Your task to perform on an android device: open app "PUBG MOBILE" Image 0: 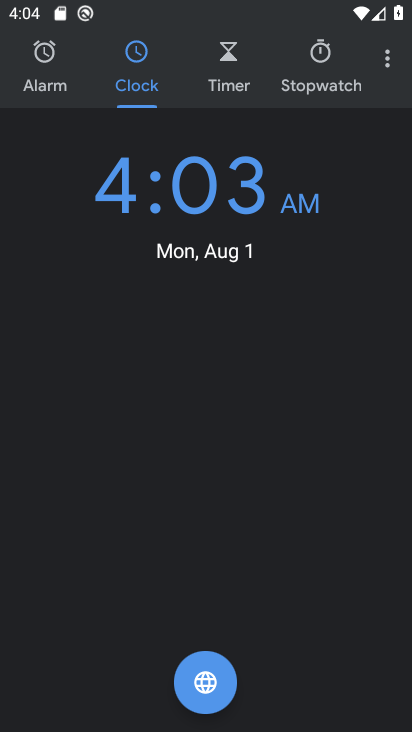
Step 0: press home button
Your task to perform on an android device: open app "PUBG MOBILE" Image 1: 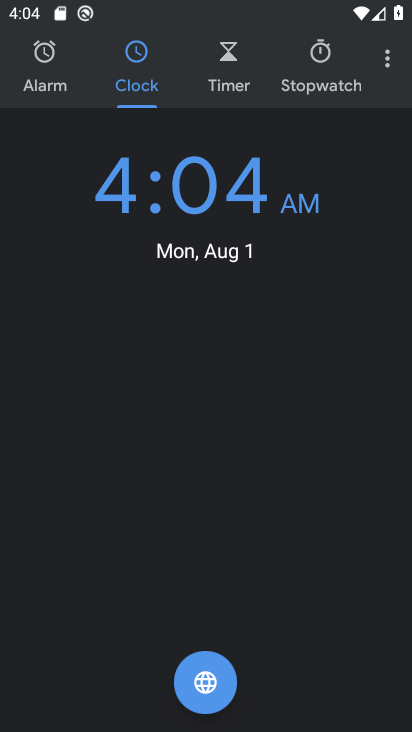
Step 1: press home button
Your task to perform on an android device: open app "PUBG MOBILE" Image 2: 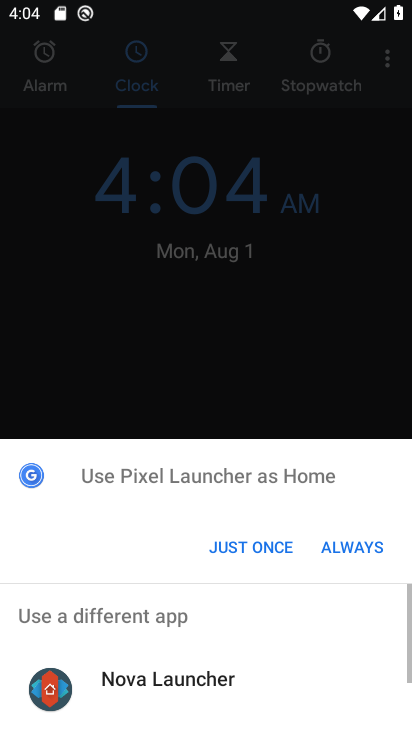
Step 2: press home button
Your task to perform on an android device: open app "PUBG MOBILE" Image 3: 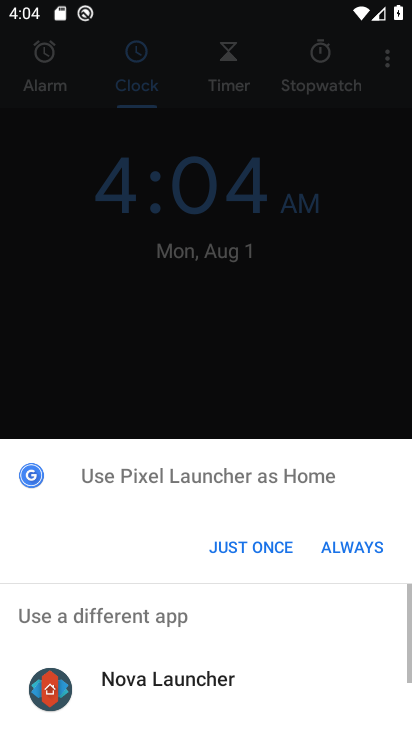
Step 3: press home button
Your task to perform on an android device: open app "PUBG MOBILE" Image 4: 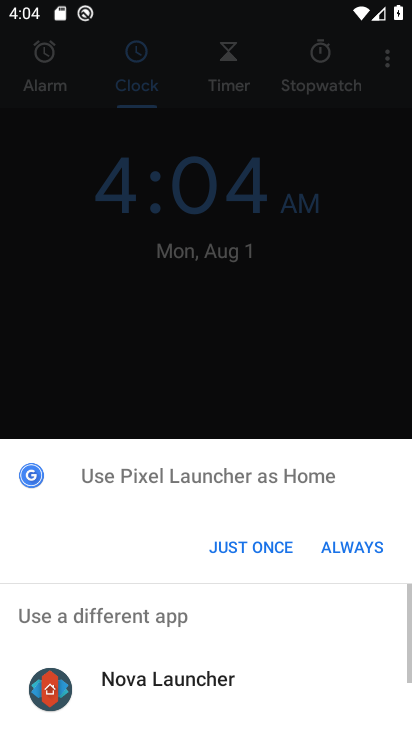
Step 4: press home button
Your task to perform on an android device: open app "PUBG MOBILE" Image 5: 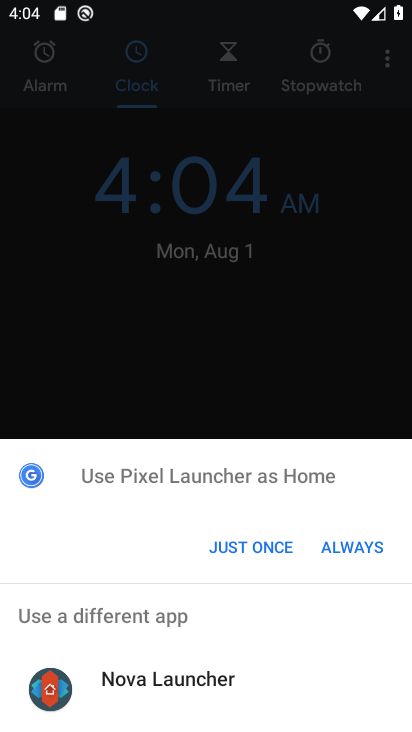
Step 5: press home button
Your task to perform on an android device: open app "PUBG MOBILE" Image 6: 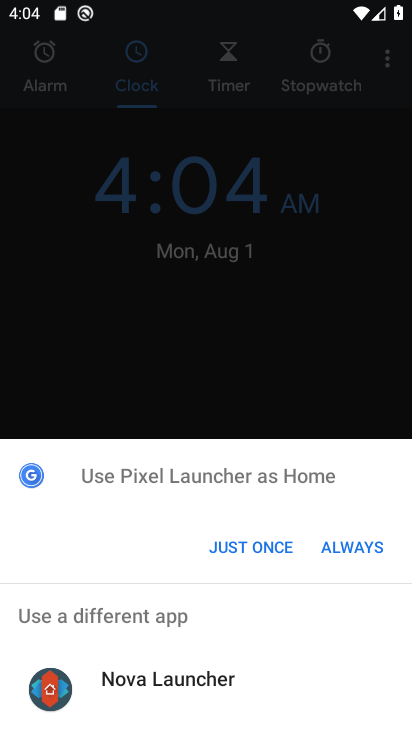
Step 6: press home button
Your task to perform on an android device: open app "PUBG MOBILE" Image 7: 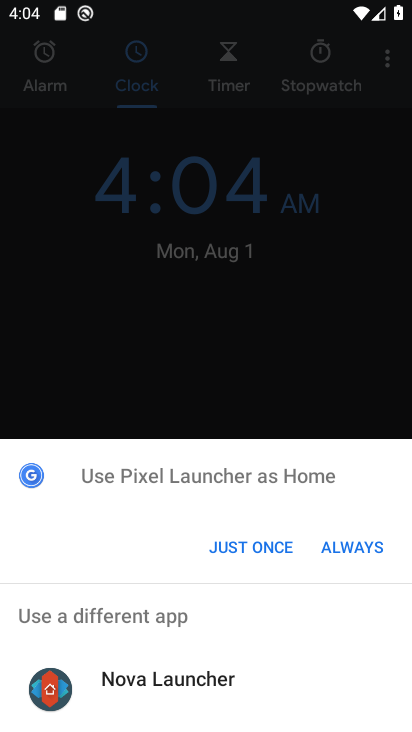
Step 7: press home button
Your task to perform on an android device: open app "PUBG MOBILE" Image 8: 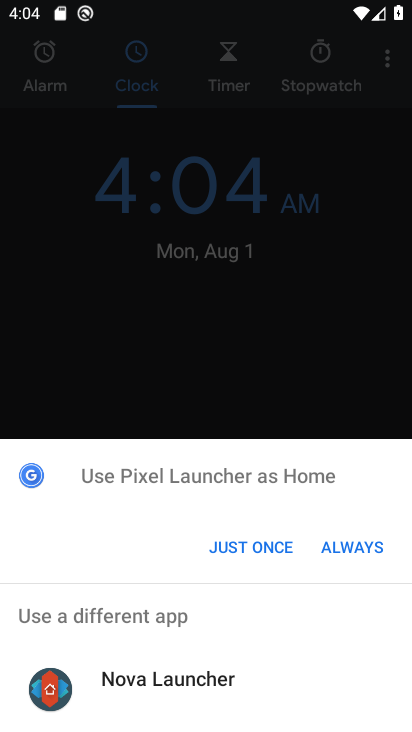
Step 8: click (364, 549)
Your task to perform on an android device: open app "PUBG MOBILE" Image 9: 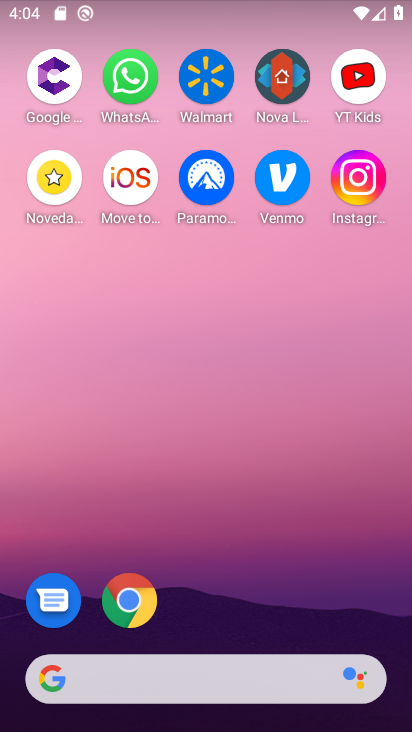
Step 9: drag from (245, 445) to (290, 46)
Your task to perform on an android device: open app "PUBG MOBILE" Image 10: 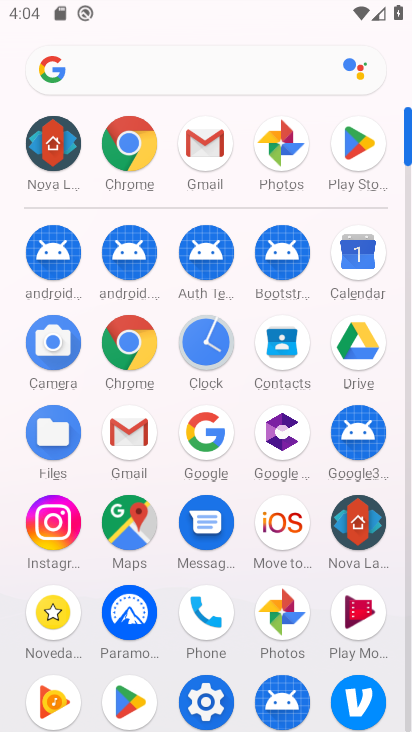
Step 10: click (352, 144)
Your task to perform on an android device: open app "PUBG MOBILE" Image 11: 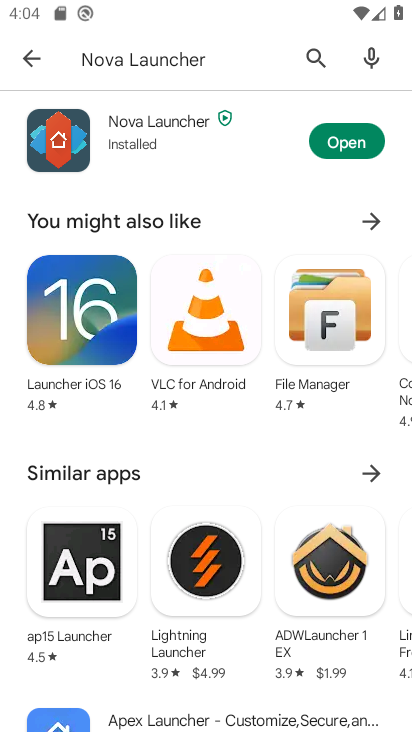
Step 11: click (288, 43)
Your task to perform on an android device: open app "PUBG MOBILE" Image 12: 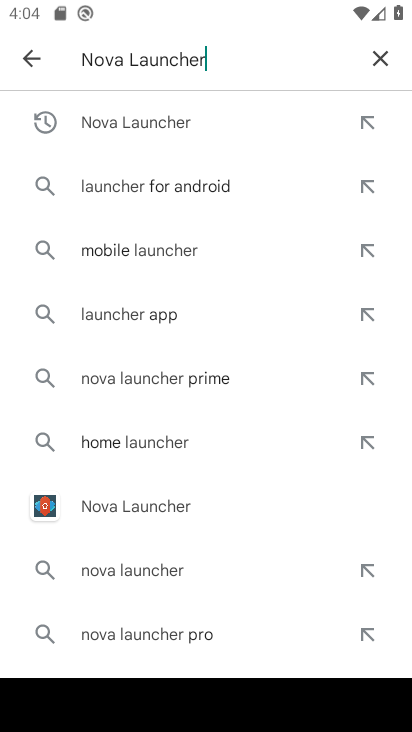
Step 12: click (380, 63)
Your task to perform on an android device: open app "PUBG MOBILE" Image 13: 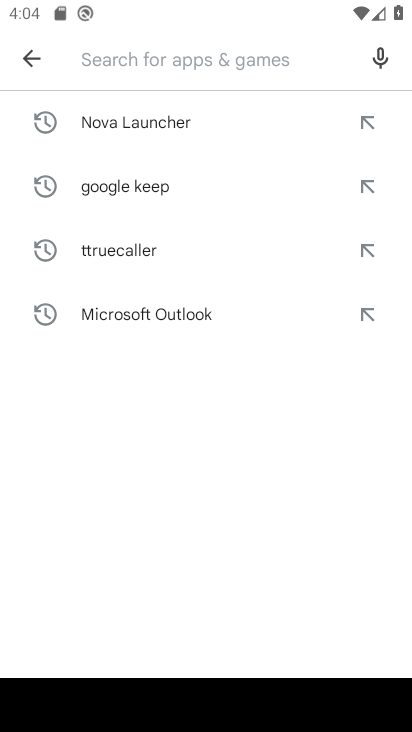
Step 13: type "PUBG Mobile"
Your task to perform on an android device: open app "PUBG MOBILE" Image 14: 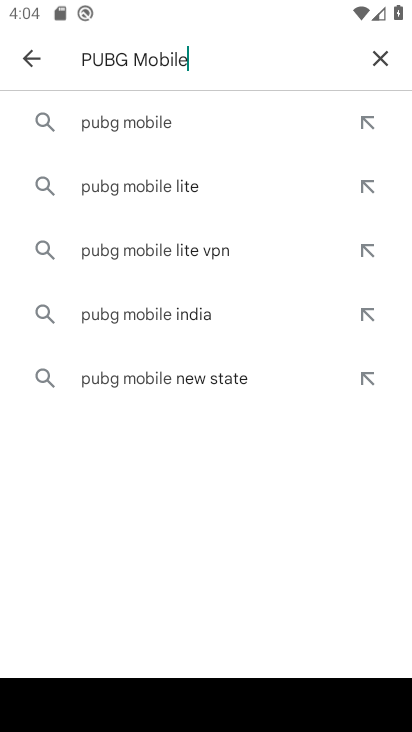
Step 14: press enter
Your task to perform on an android device: open app "PUBG MOBILE" Image 15: 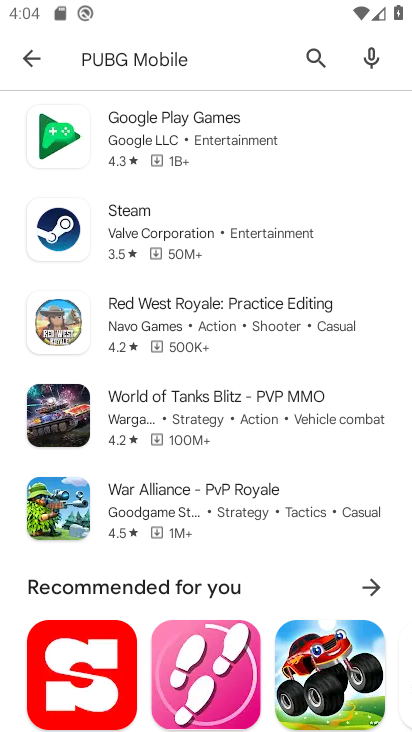
Step 15: task complete